Your task to perform on an android device: toggle airplane mode Image 0: 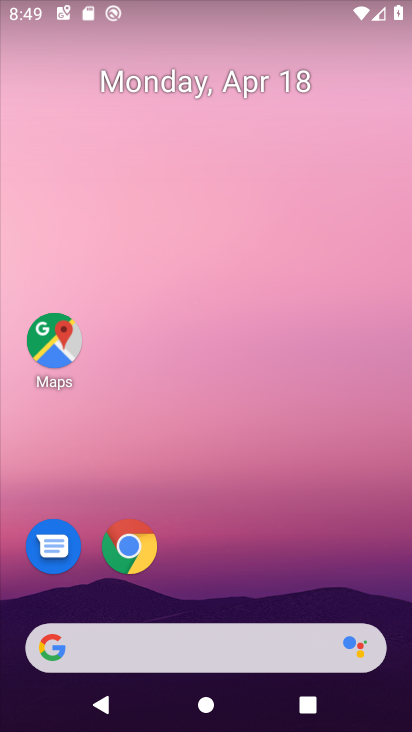
Step 0: drag from (318, 514) to (214, 153)
Your task to perform on an android device: toggle airplane mode Image 1: 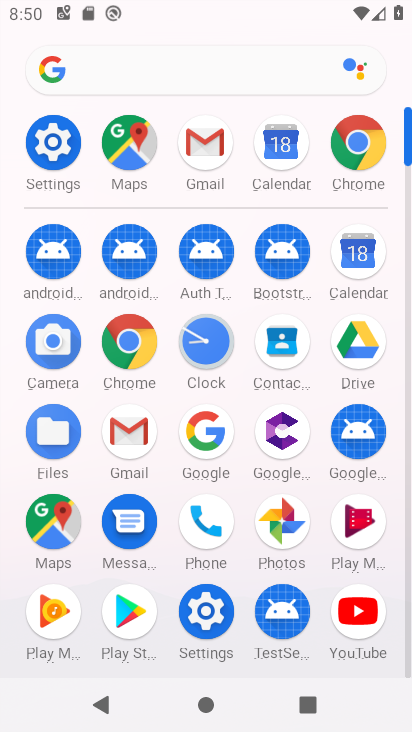
Step 1: click (70, 144)
Your task to perform on an android device: toggle airplane mode Image 2: 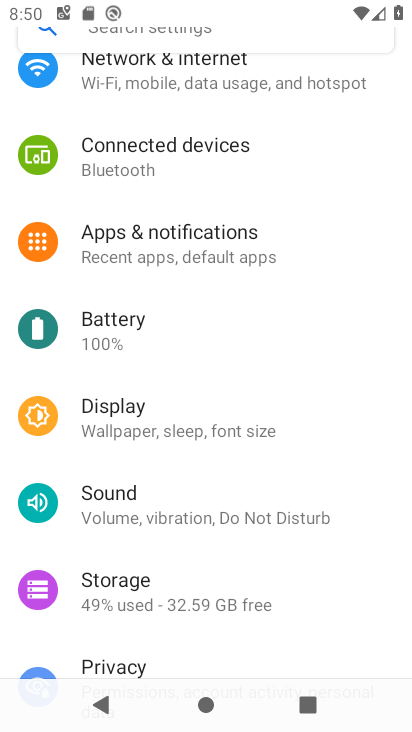
Step 2: click (273, 98)
Your task to perform on an android device: toggle airplane mode Image 3: 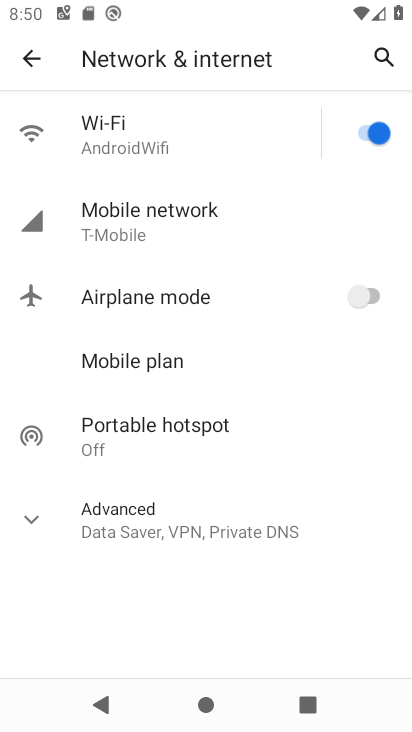
Step 3: click (365, 294)
Your task to perform on an android device: toggle airplane mode Image 4: 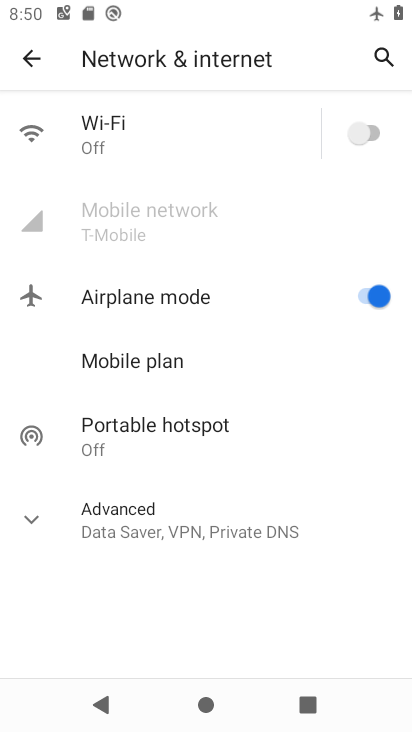
Step 4: task complete